Your task to perform on an android device: Open my contact list Image 0: 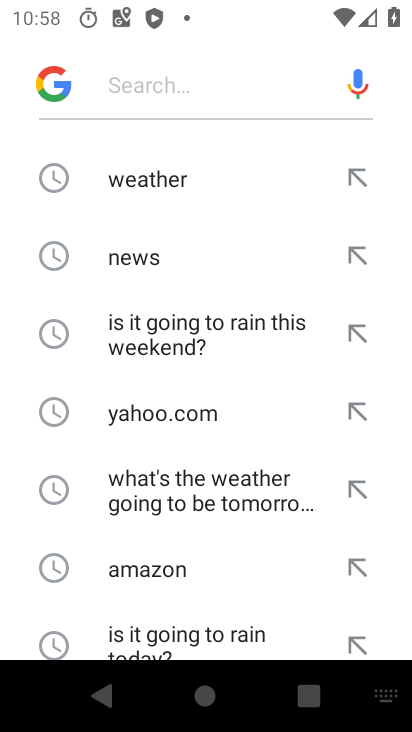
Step 0: press home button
Your task to perform on an android device: Open my contact list Image 1: 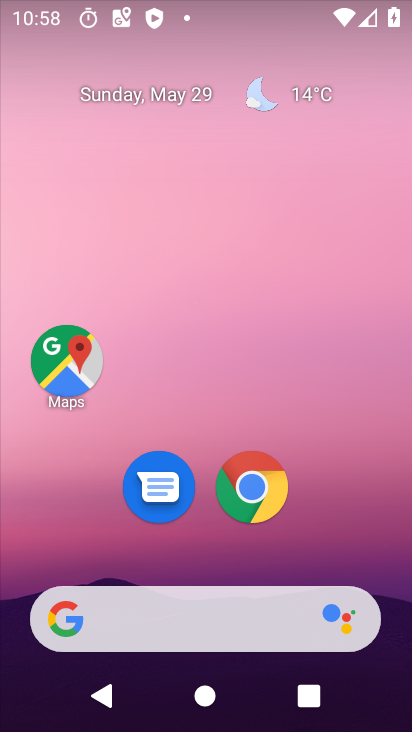
Step 1: drag from (404, 376) to (395, 291)
Your task to perform on an android device: Open my contact list Image 2: 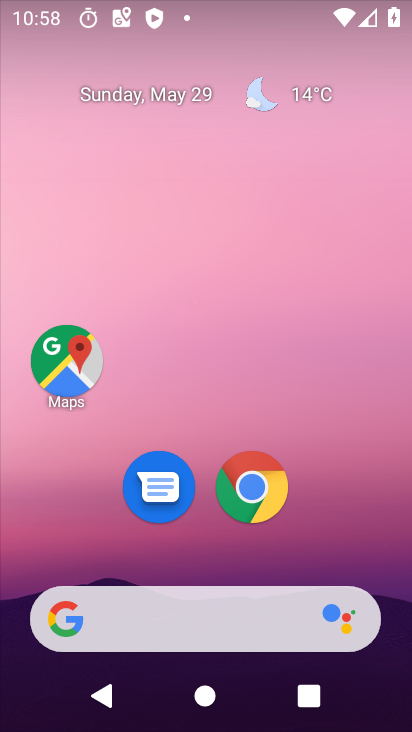
Step 2: drag from (396, 668) to (350, 173)
Your task to perform on an android device: Open my contact list Image 3: 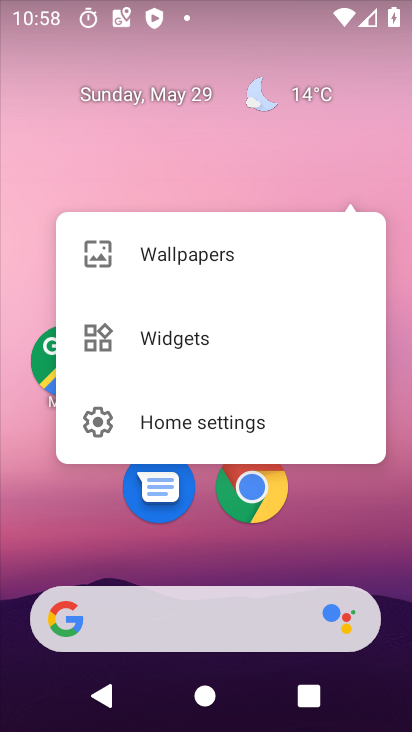
Step 3: click (349, 132)
Your task to perform on an android device: Open my contact list Image 4: 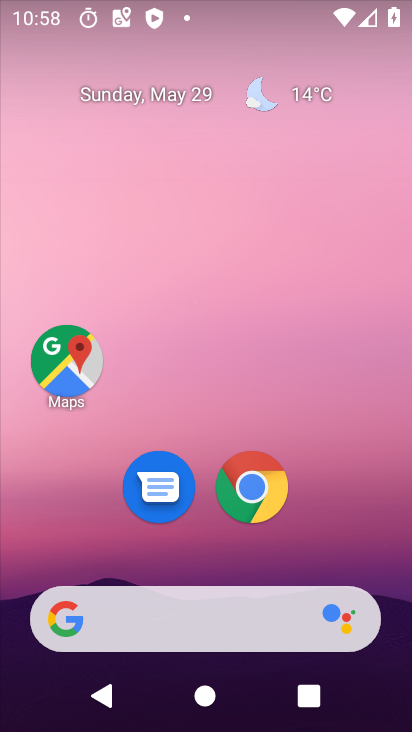
Step 4: drag from (404, 664) to (372, 144)
Your task to perform on an android device: Open my contact list Image 5: 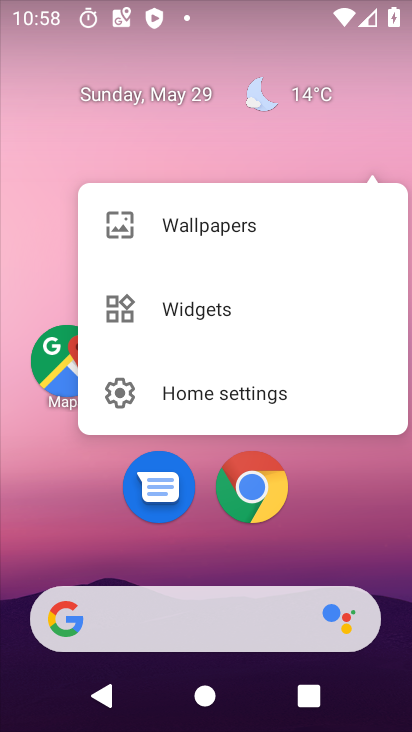
Step 5: click (398, 593)
Your task to perform on an android device: Open my contact list Image 6: 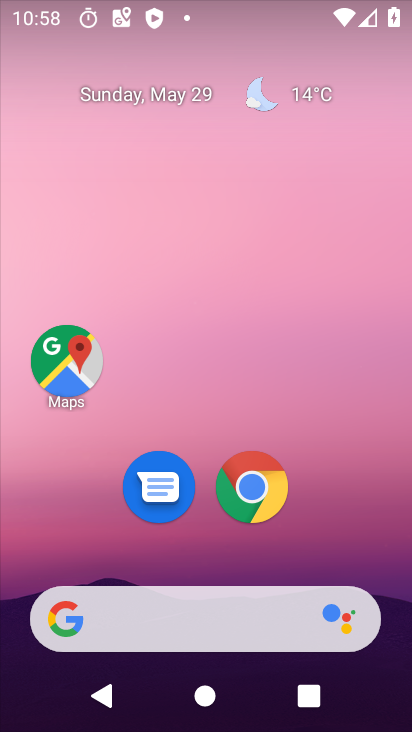
Step 6: drag from (395, 657) to (323, 88)
Your task to perform on an android device: Open my contact list Image 7: 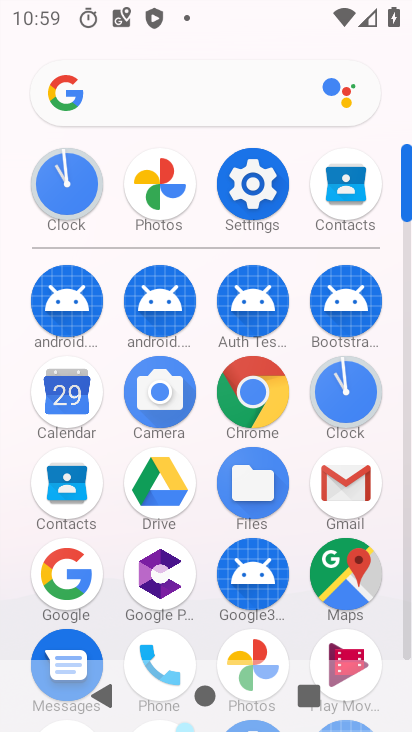
Step 7: click (49, 513)
Your task to perform on an android device: Open my contact list Image 8: 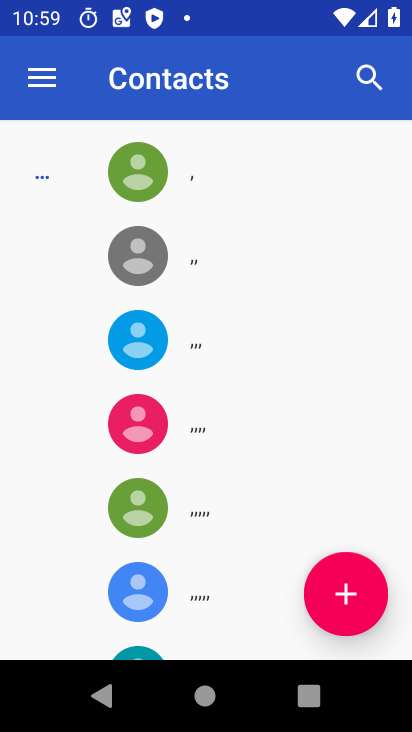
Step 8: click (324, 562)
Your task to perform on an android device: Open my contact list Image 9: 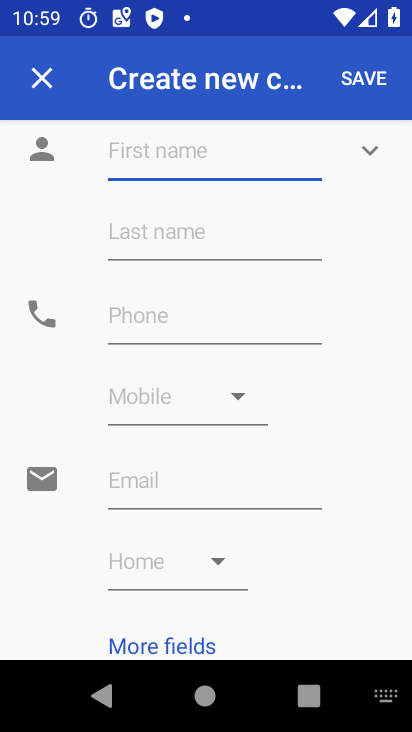
Step 9: type "ggghfchf"
Your task to perform on an android device: Open my contact list Image 10: 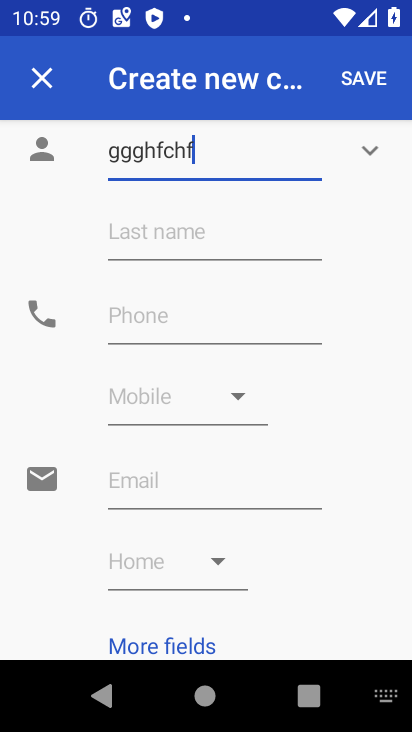
Step 10: click (232, 237)
Your task to perform on an android device: Open my contact list Image 11: 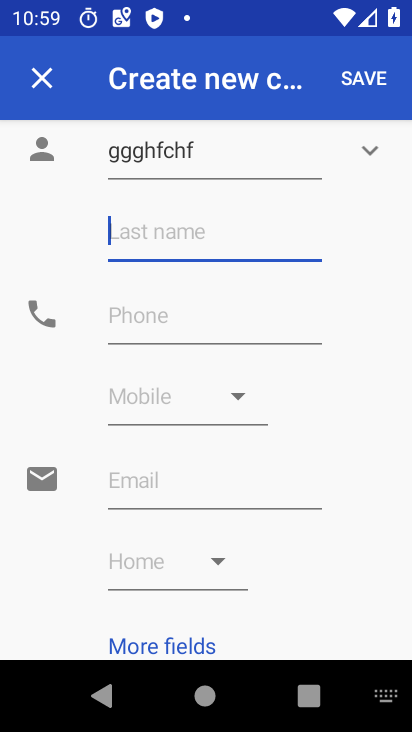
Step 11: type "ddddeedss"
Your task to perform on an android device: Open my contact list Image 12: 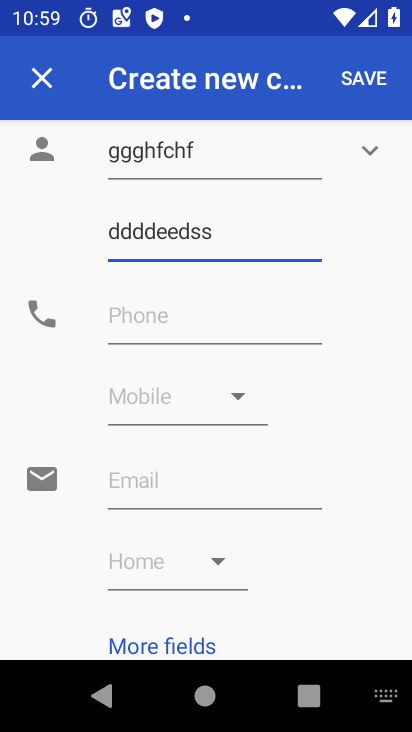
Step 12: click (187, 322)
Your task to perform on an android device: Open my contact list Image 13: 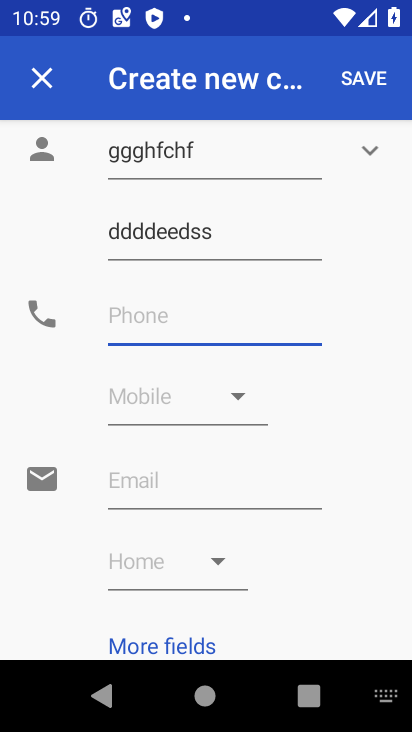
Step 13: type "4565123456789"
Your task to perform on an android device: Open my contact list Image 14: 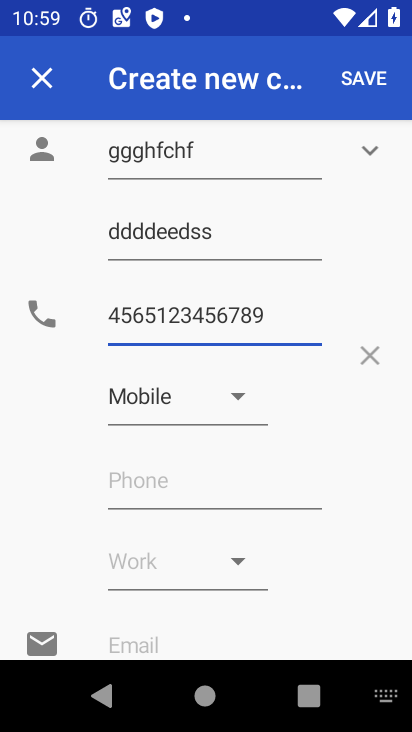
Step 14: click (368, 78)
Your task to perform on an android device: Open my contact list Image 15: 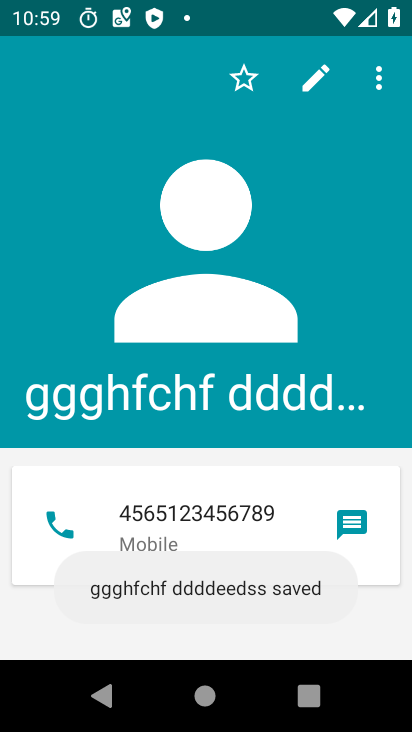
Step 15: task complete